Your task to perform on an android device: open chrome and create a bookmark for the current page Image 0: 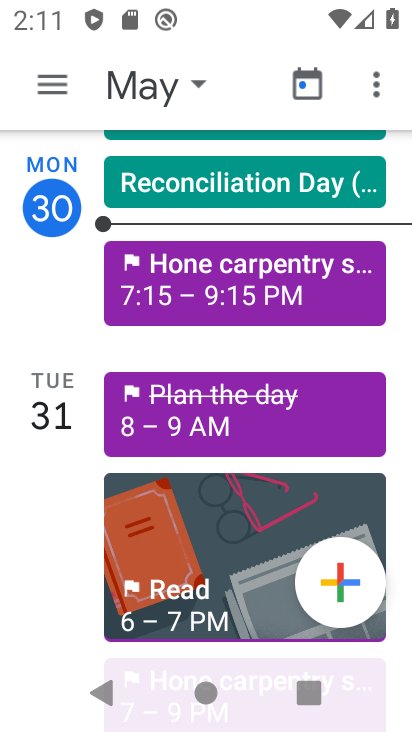
Step 0: press home button
Your task to perform on an android device: open chrome and create a bookmark for the current page Image 1: 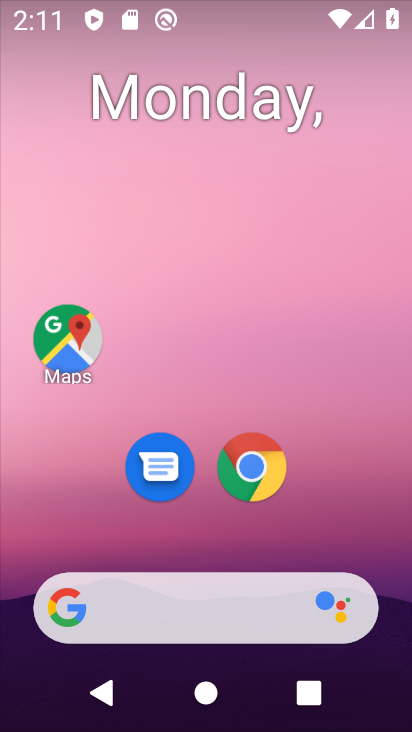
Step 1: click (250, 472)
Your task to perform on an android device: open chrome and create a bookmark for the current page Image 2: 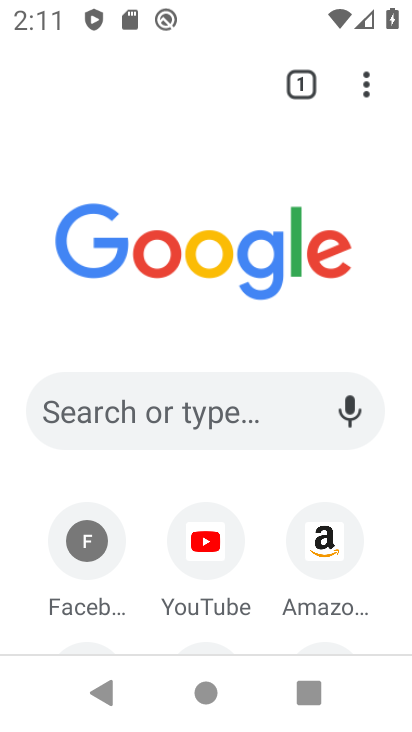
Step 2: click (369, 109)
Your task to perform on an android device: open chrome and create a bookmark for the current page Image 3: 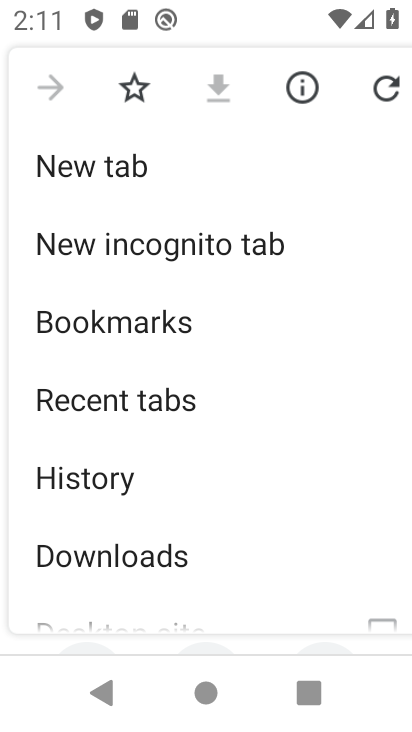
Step 3: click (146, 101)
Your task to perform on an android device: open chrome and create a bookmark for the current page Image 4: 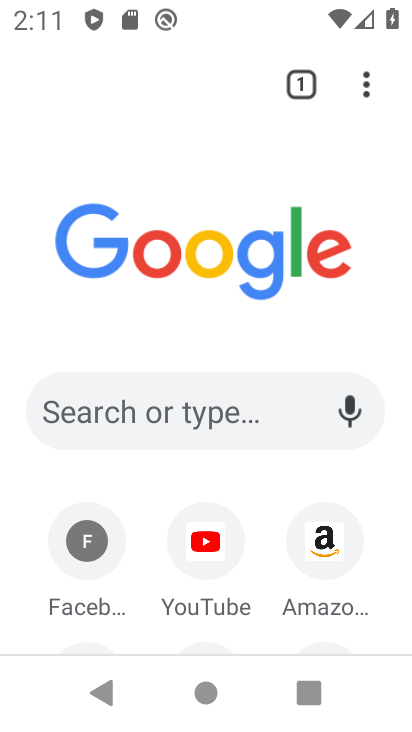
Step 4: task complete